Your task to perform on an android device: check the backup settings in the google photos Image 0: 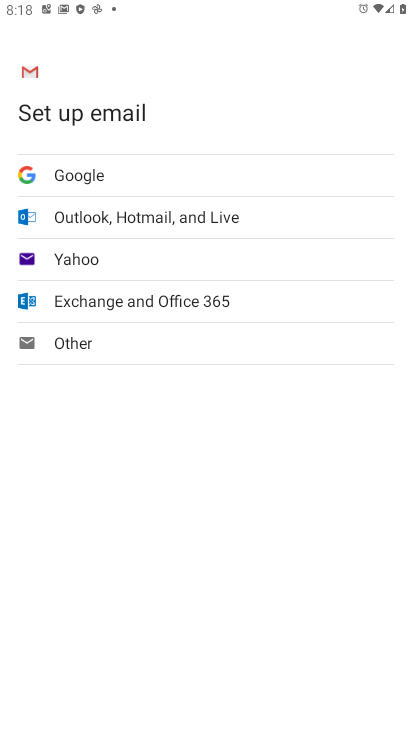
Step 0: press home button
Your task to perform on an android device: check the backup settings in the google photos Image 1: 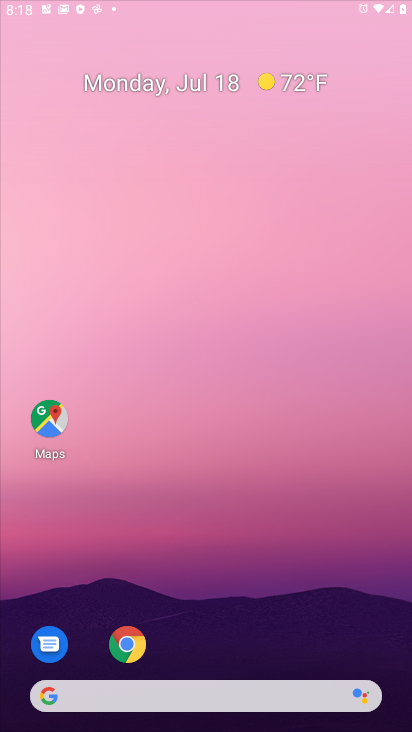
Step 1: drag from (389, 705) to (270, 46)
Your task to perform on an android device: check the backup settings in the google photos Image 2: 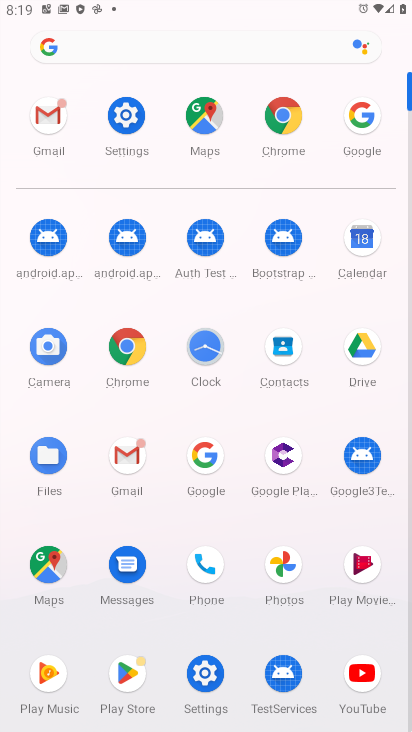
Step 2: click (300, 563)
Your task to perform on an android device: check the backup settings in the google photos Image 3: 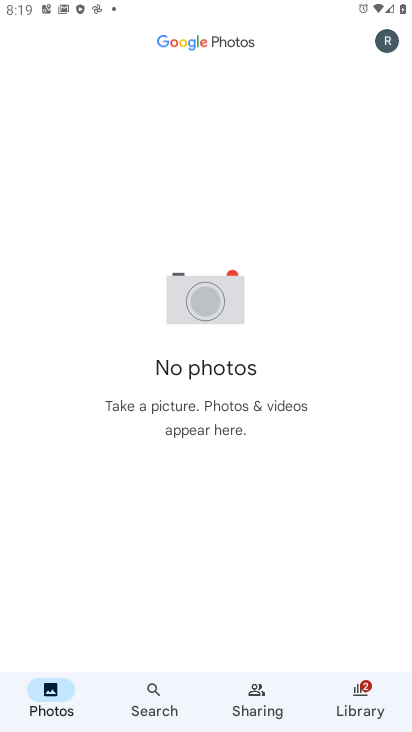
Step 3: click (385, 49)
Your task to perform on an android device: check the backup settings in the google photos Image 4: 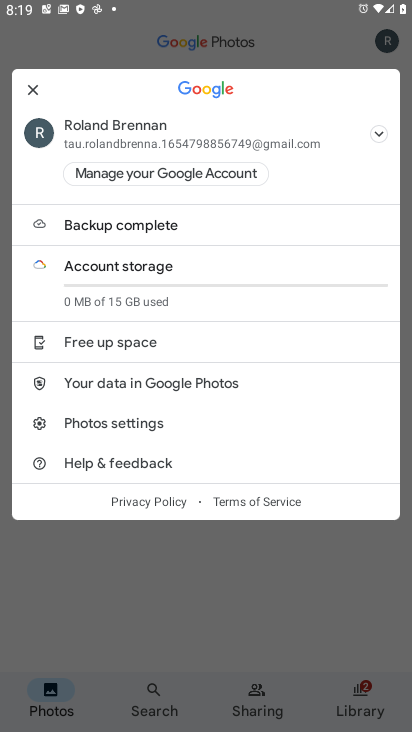
Step 4: click (125, 226)
Your task to perform on an android device: check the backup settings in the google photos Image 5: 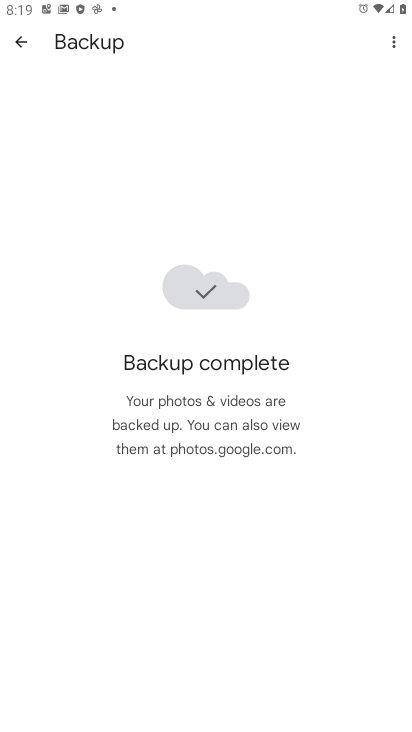
Step 5: task complete